Your task to perform on an android device: check battery use Image 0: 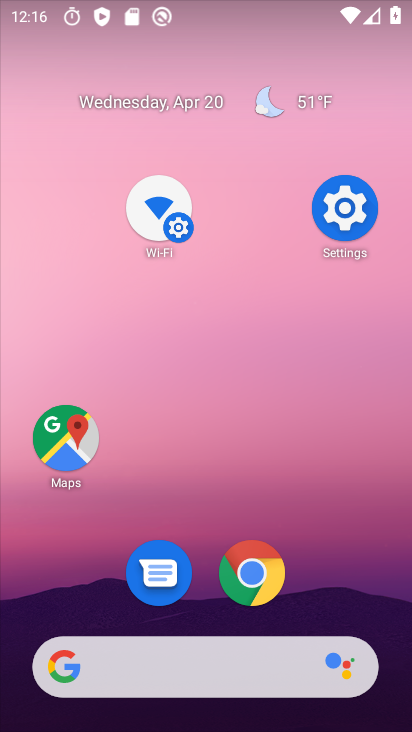
Step 0: click (346, 210)
Your task to perform on an android device: check battery use Image 1: 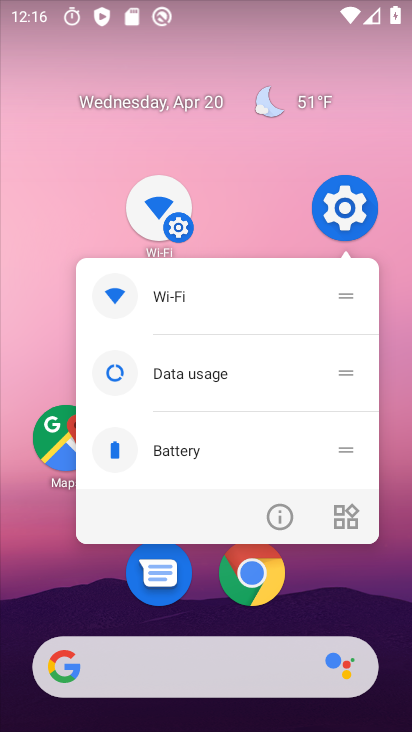
Step 1: click (344, 214)
Your task to perform on an android device: check battery use Image 2: 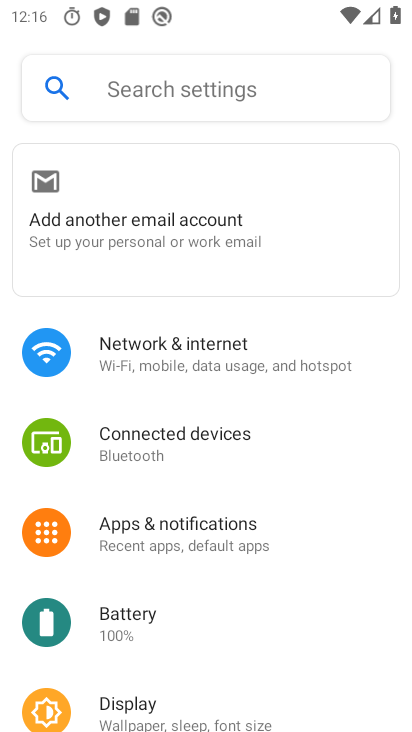
Step 2: click (201, 626)
Your task to perform on an android device: check battery use Image 3: 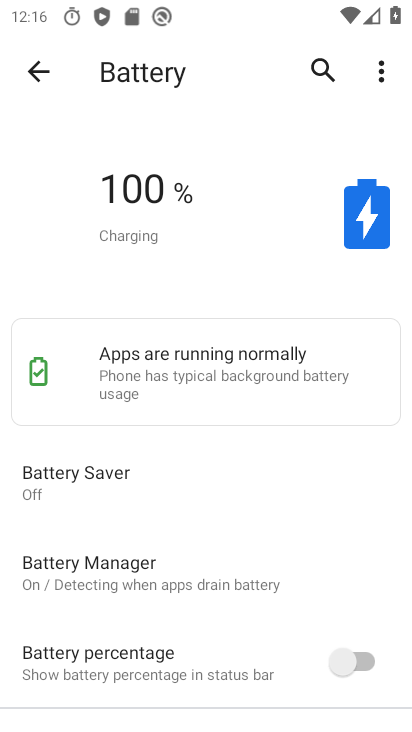
Step 3: task complete